Your task to perform on an android device: Add macbook pro to the cart on bestbuy.com Image 0: 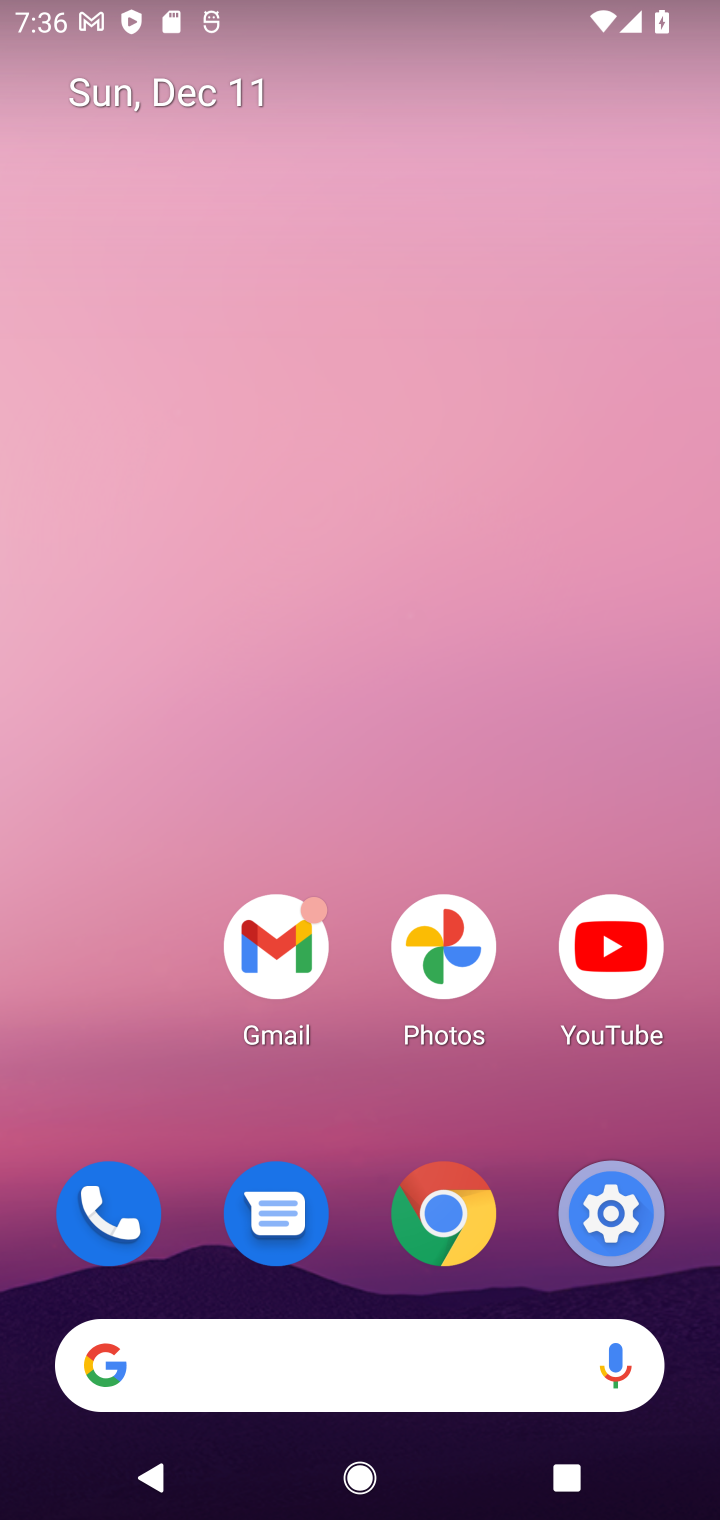
Step 0: click (438, 1353)
Your task to perform on an android device: Add macbook pro to the cart on bestbuy.com Image 1: 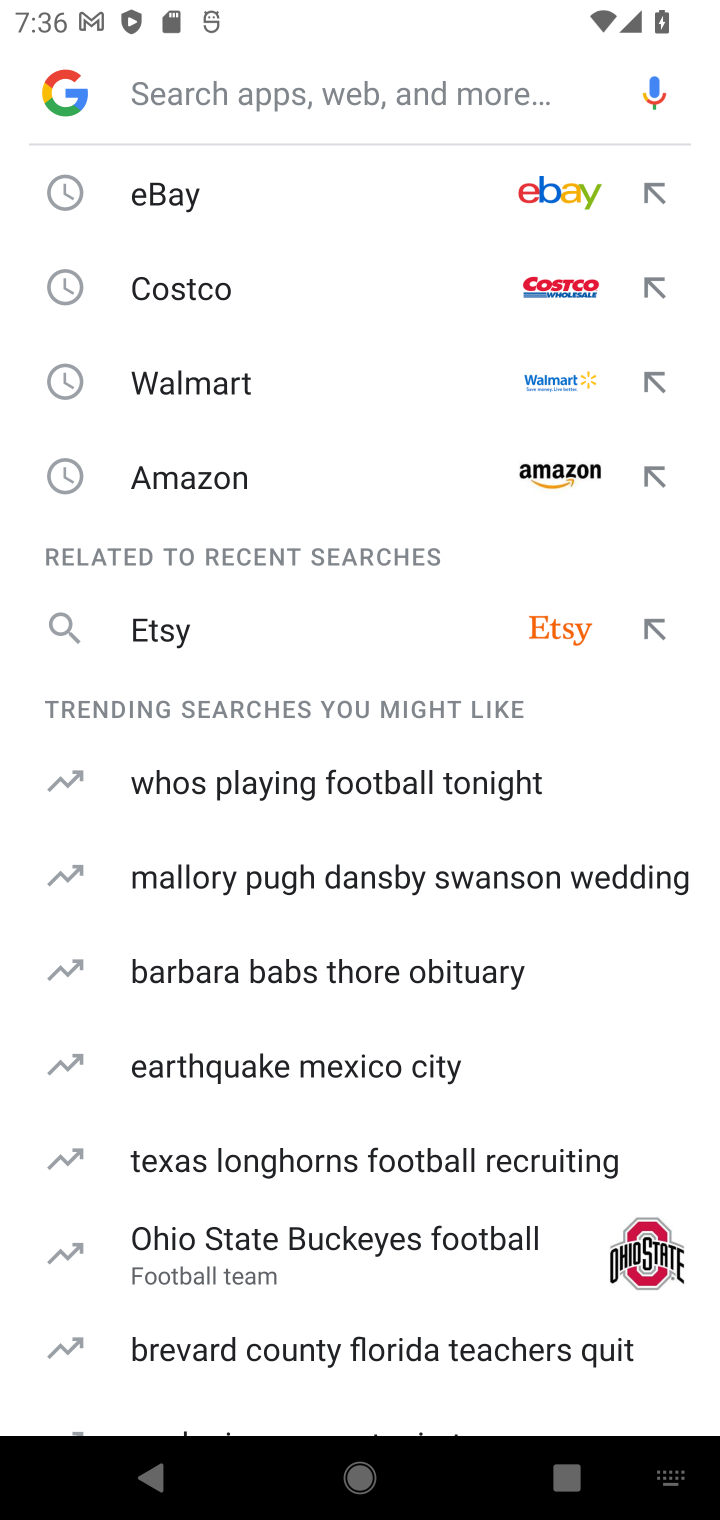
Step 1: type "bestbuy"
Your task to perform on an android device: Add macbook pro to the cart on bestbuy.com Image 2: 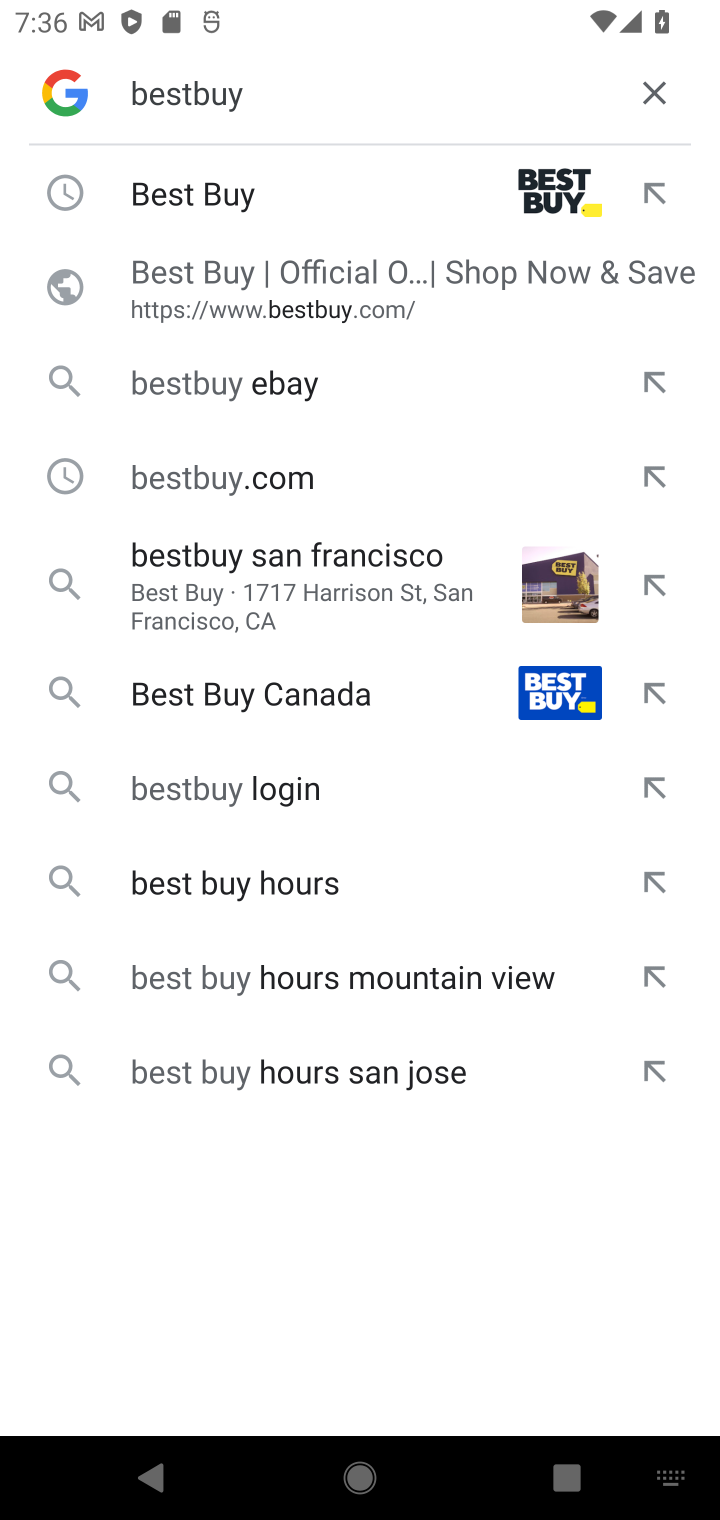
Step 2: click (205, 226)
Your task to perform on an android device: Add macbook pro to the cart on bestbuy.com Image 3: 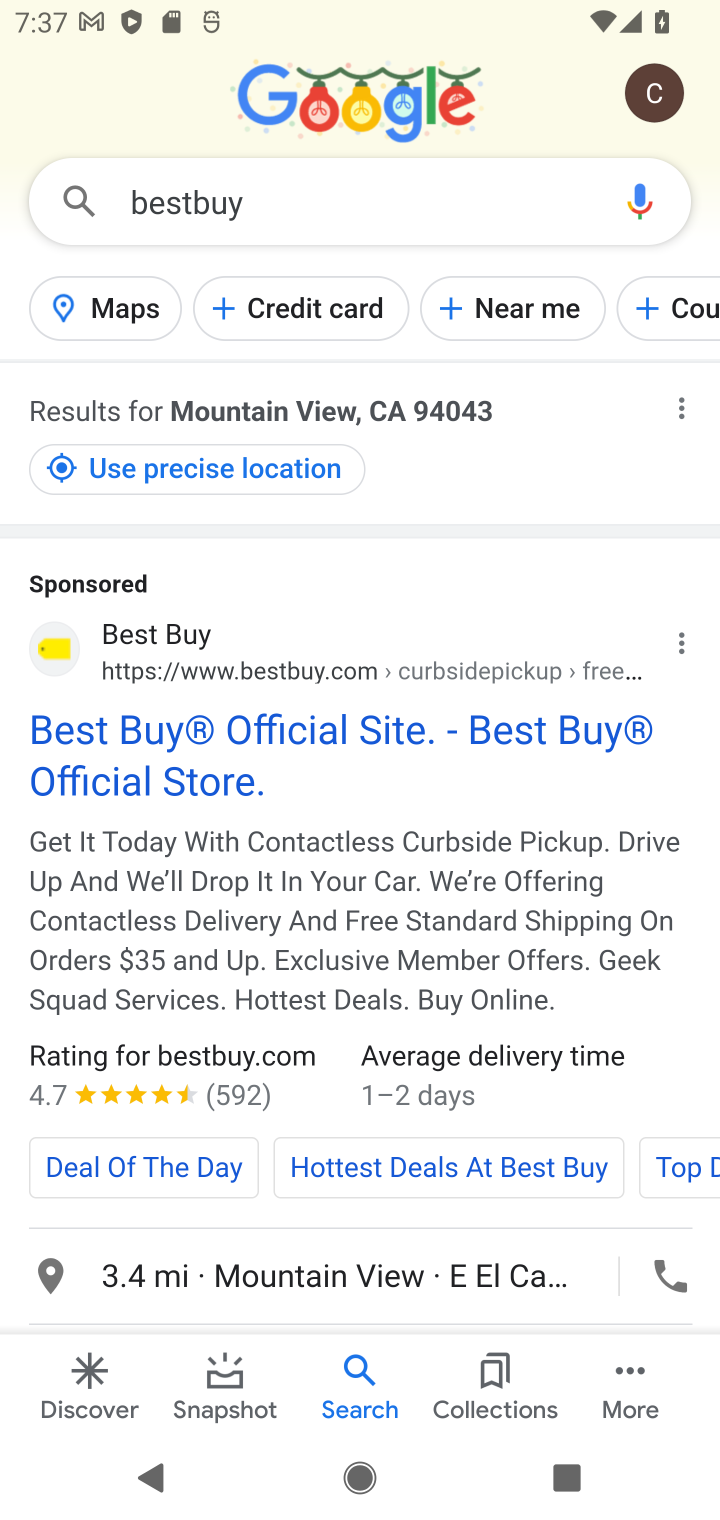
Step 3: click (92, 779)
Your task to perform on an android device: Add macbook pro to the cart on bestbuy.com Image 4: 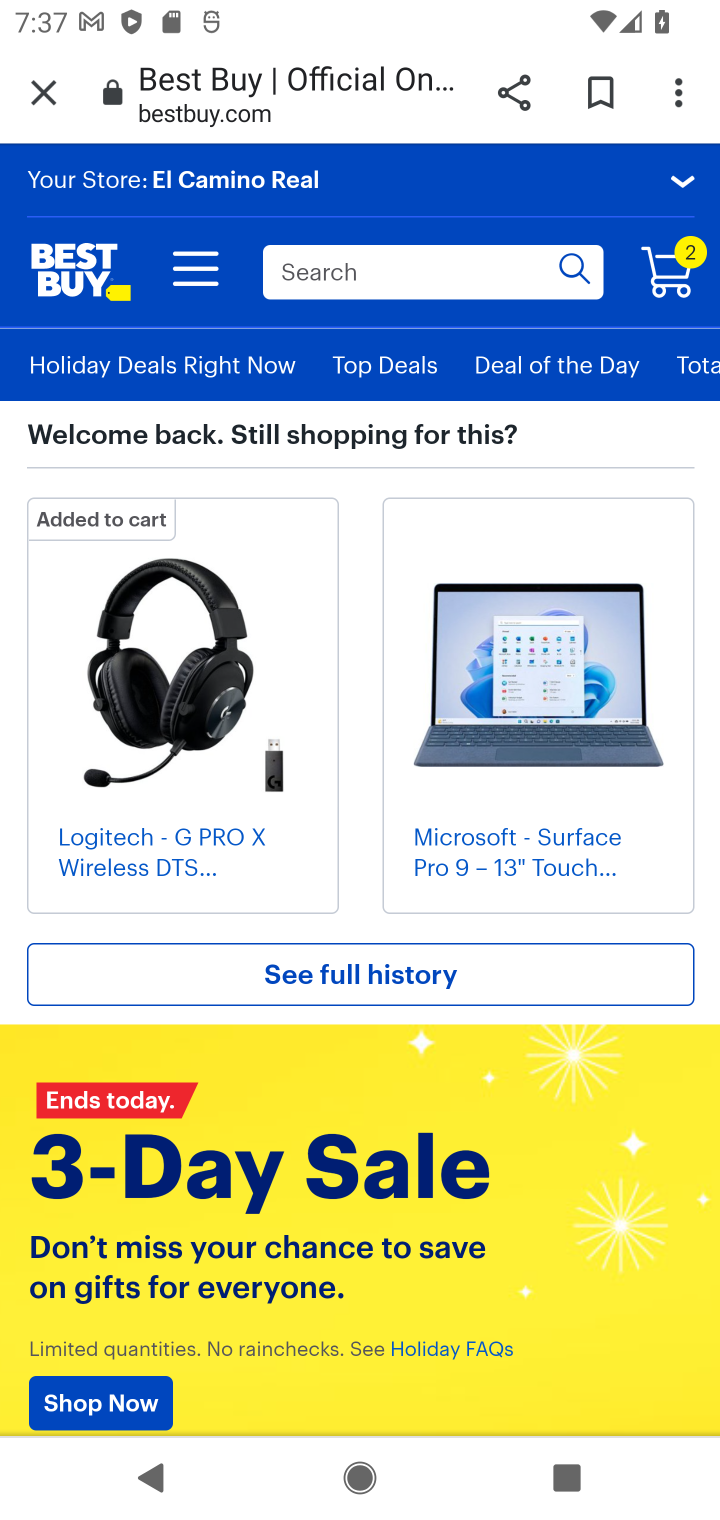
Step 4: click (138, 768)
Your task to perform on an android device: Add macbook pro to the cart on bestbuy.com Image 5: 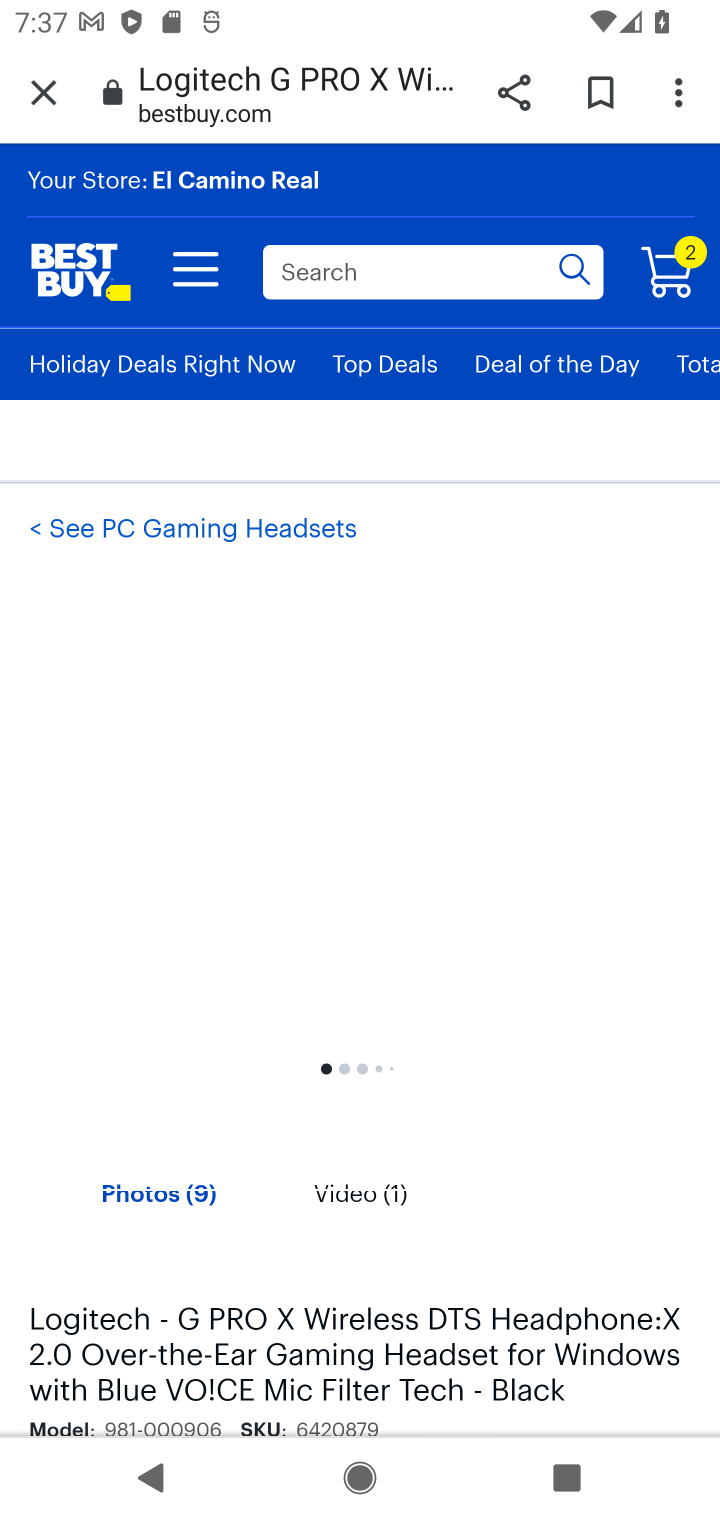
Step 5: drag from (261, 1066) to (335, 249)
Your task to perform on an android device: Add macbook pro to the cart on bestbuy.com Image 6: 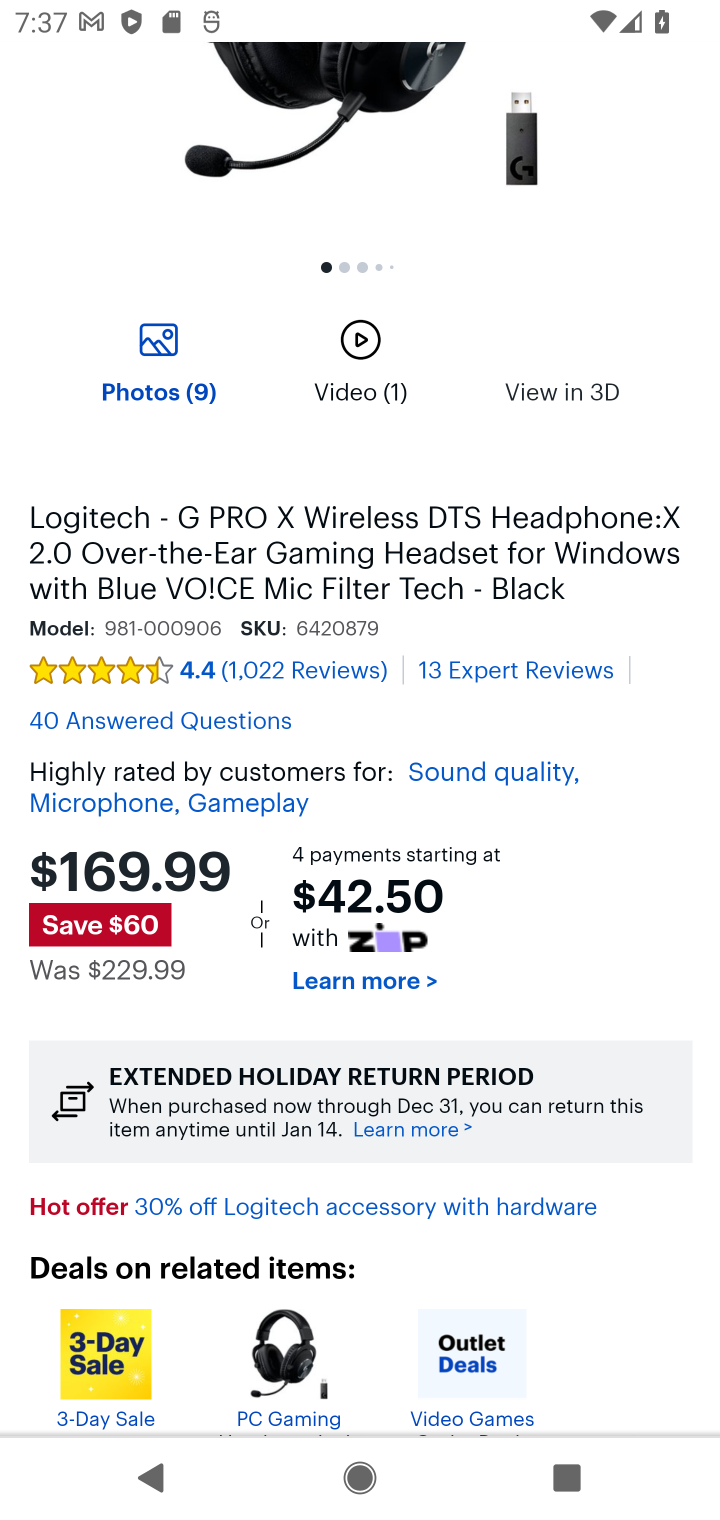
Step 6: drag from (442, 1141) to (408, 297)
Your task to perform on an android device: Add macbook pro to the cart on bestbuy.com Image 7: 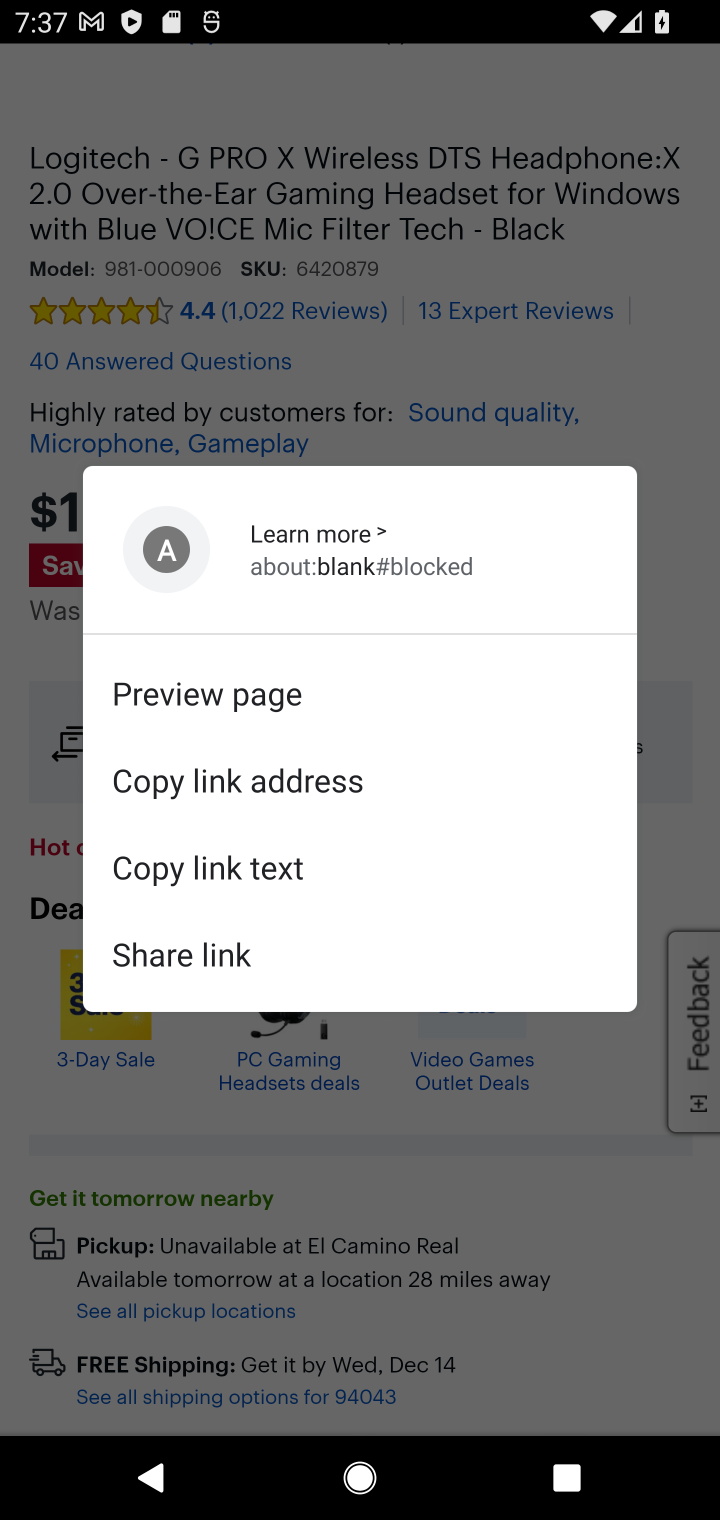
Step 7: click (570, 1100)
Your task to perform on an android device: Add macbook pro to the cart on bestbuy.com Image 8: 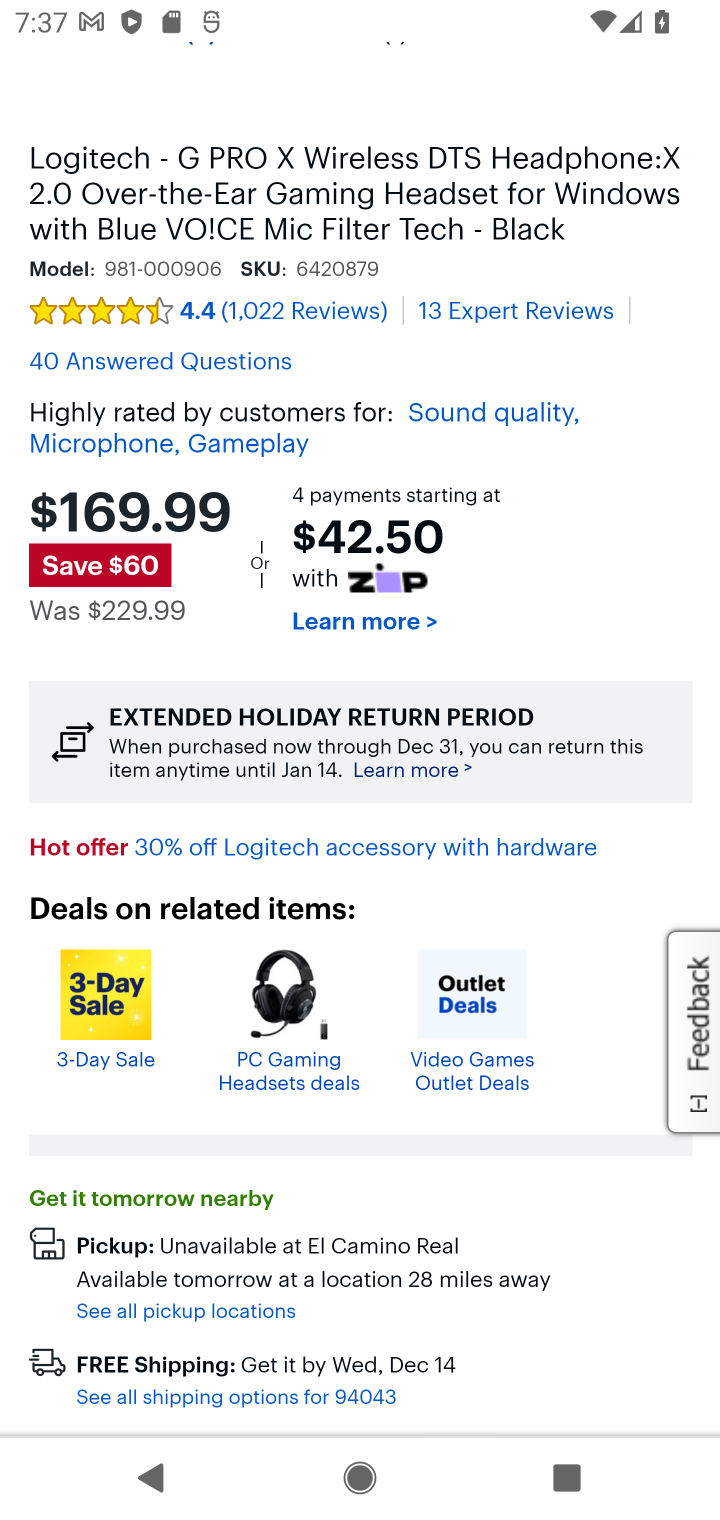
Step 8: drag from (526, 1163) to (518, 364)
Your task to perform on an android device: Add macbook pro to the cart on bestbuy.com Image 9: 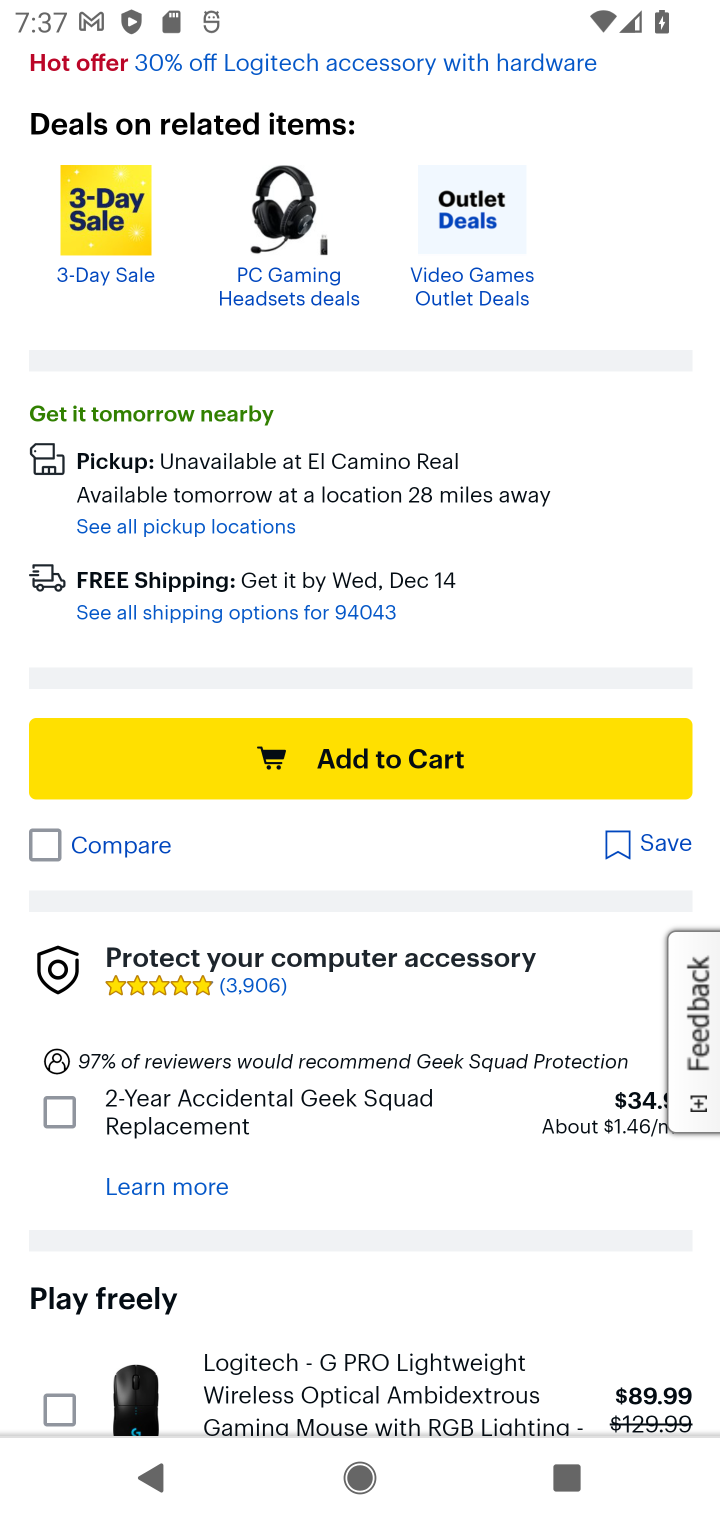
Step 9: click (490, 844)
Your task to perform on an android device: Add macbook pro to the cart on bestbuy.com Image 10: 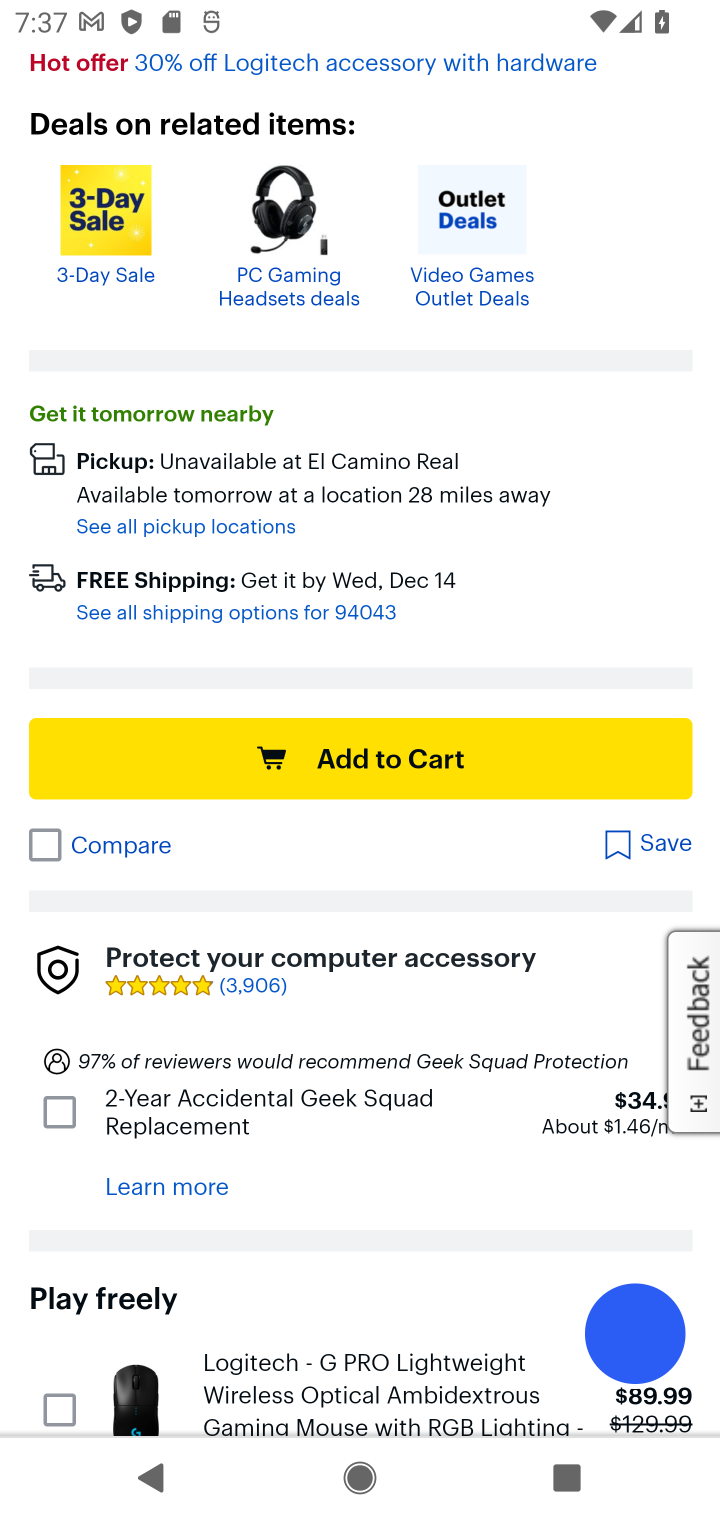
Step 10: click (490, 792)
Your task to perform on an android device: Add macbook pro to the cart on bestbuy.com Image 11: 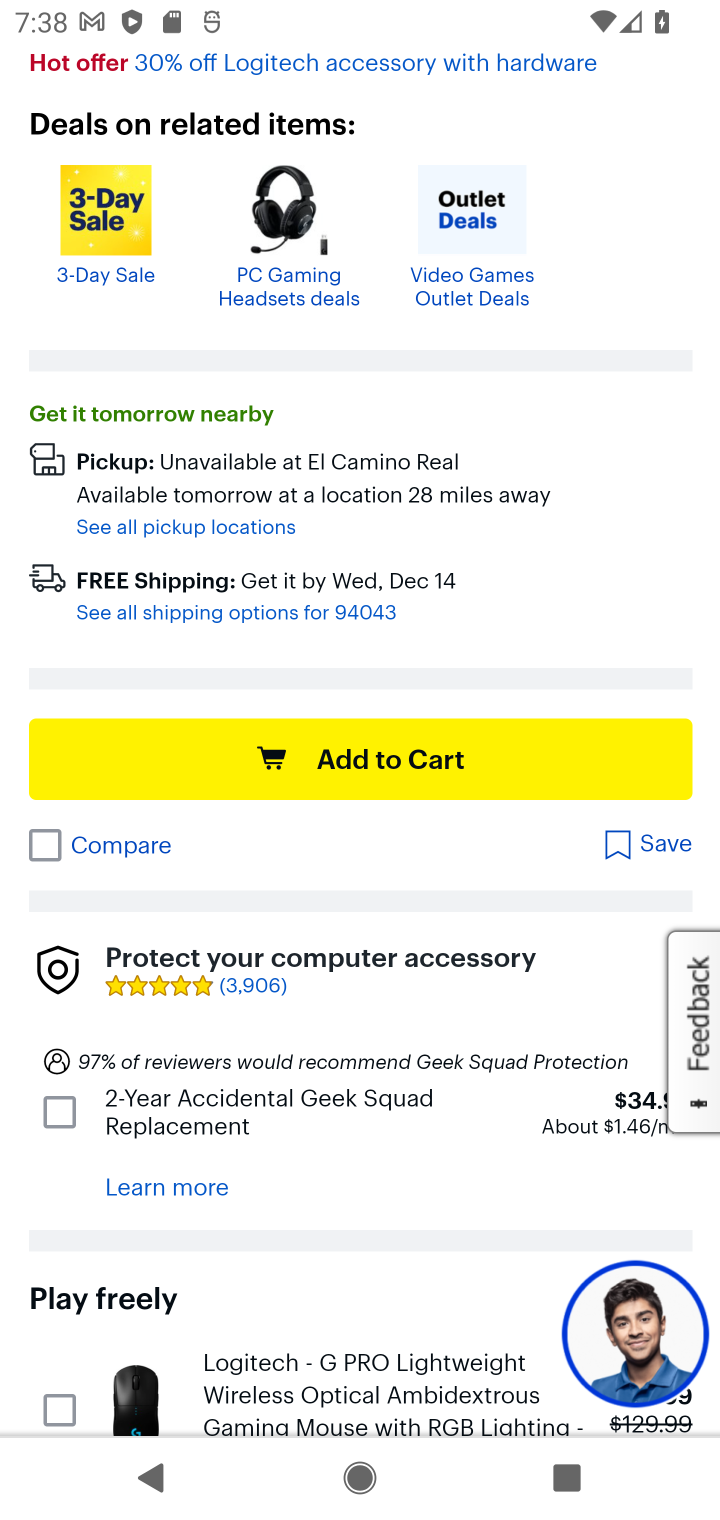
Step 11: task complete